Your task to perform on an android device: open app "Duolingo: language lessons" Image 0: 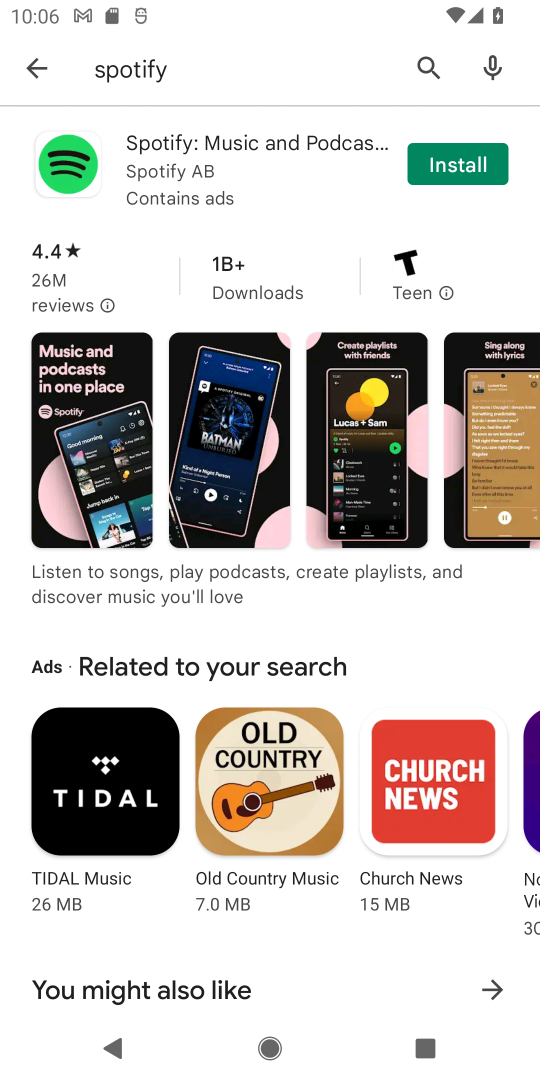
Step 0: press home button
Your task to perform on an android device: open app "Duolingo: language lessons" Image 1: 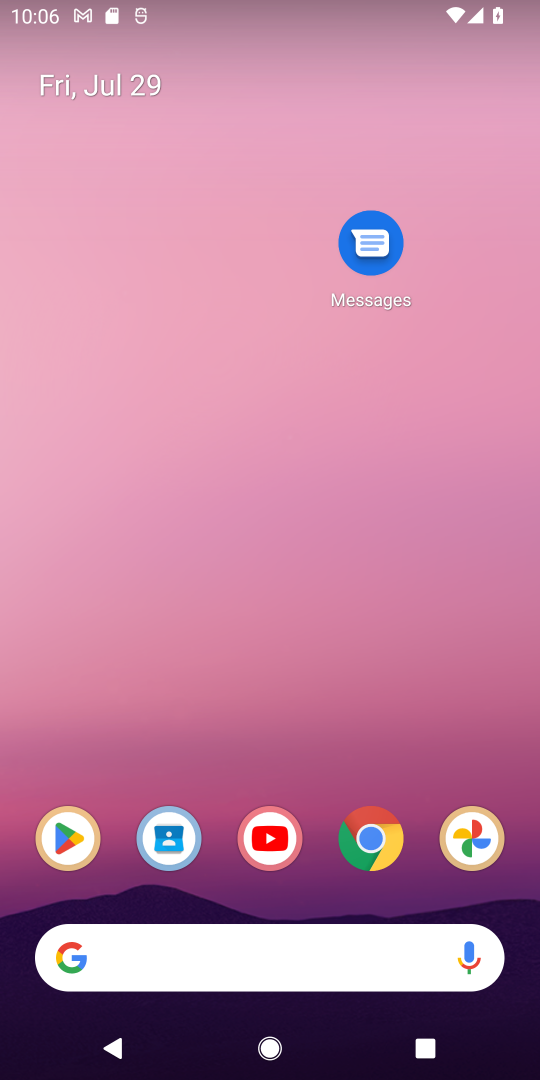
Step 1: click (69, 840)
Your task to perform on an android device: open app "Duolingo: language lessons" Image 2: 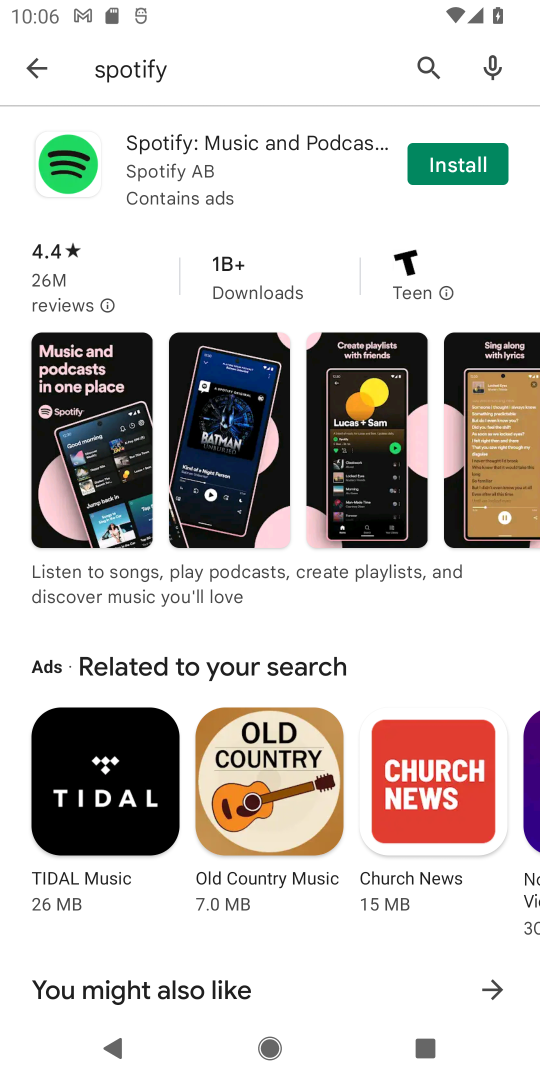
Step 2: click (211, 68)
Your task to perform on an android device: open app "Duolingo: language lessons" Image 3: 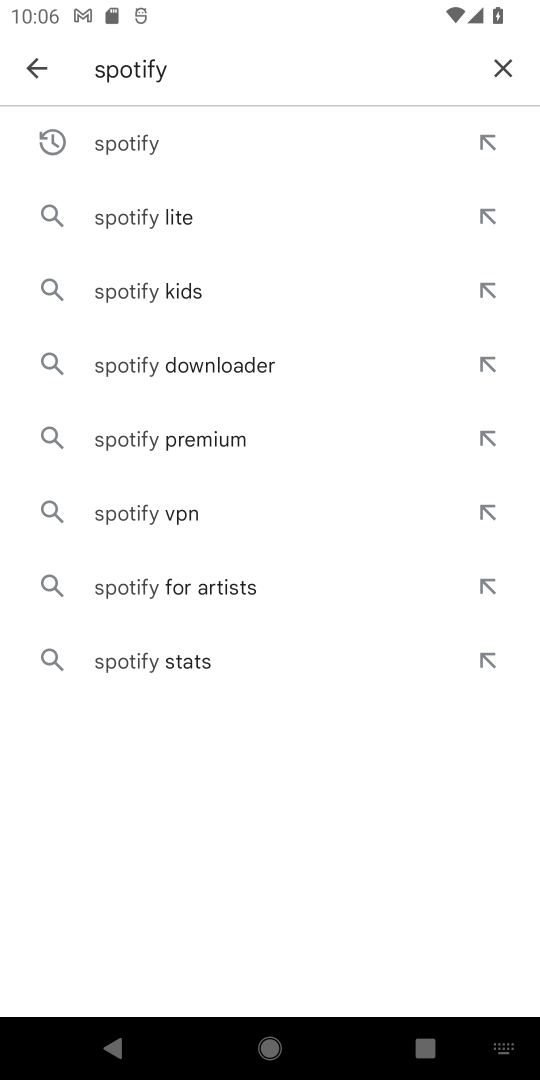
Step 3: click (494, 62)
Your task to perform on an android device: open app "Duolingo: language lessons" Image 4: 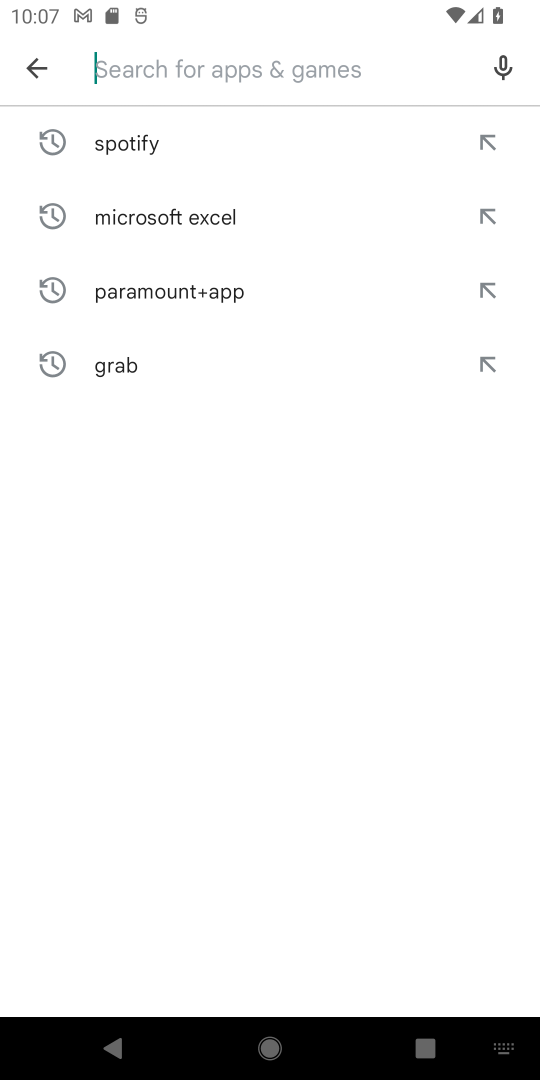
Step 4: type "Duolingo"
Your task to perform on an android device: open app "Duolingo: language lessons" Image 5: 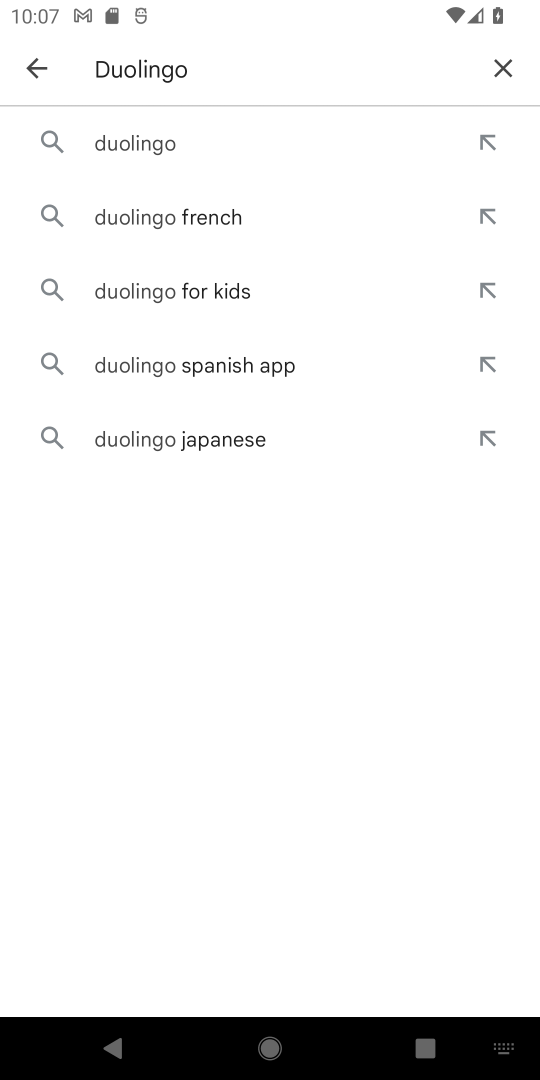
Step 5: click (165, 158)
Your task to perform on an android device: open app "Duolingo: language lessons" Image 6: 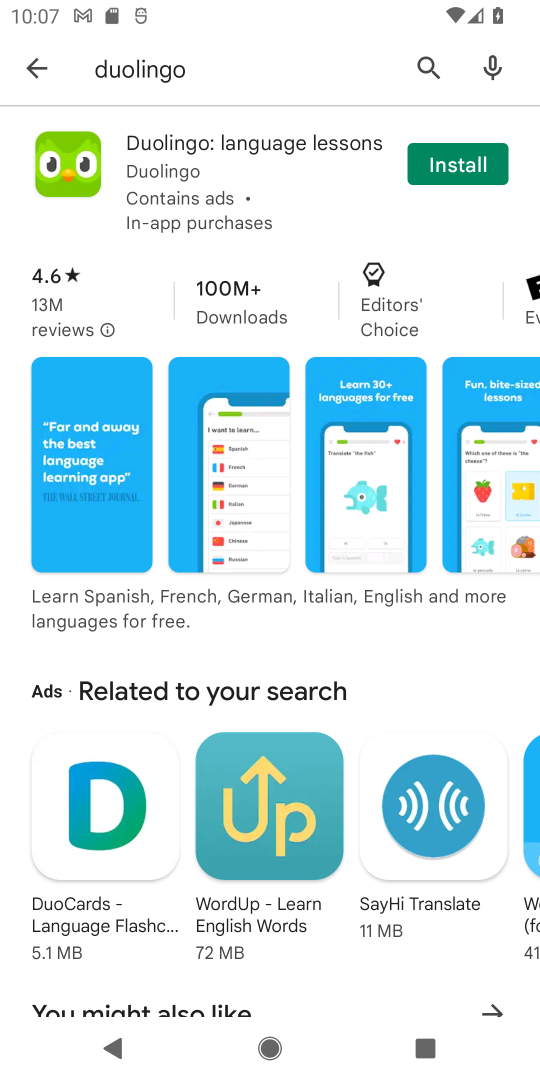
Step 6: task complete